Your task to perform on an android device: toggle show notifications on the lock screen Image 0: 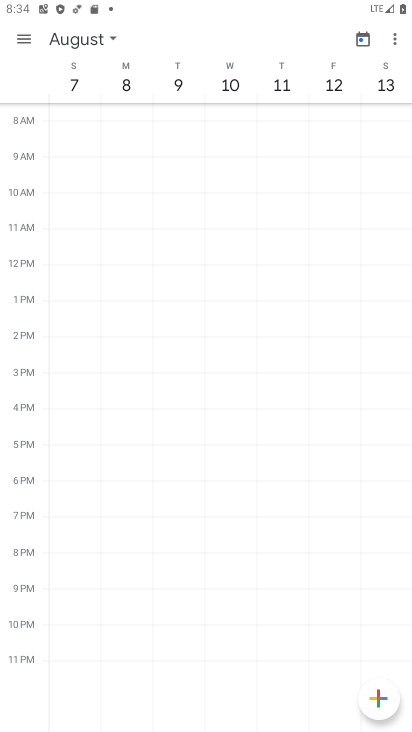
Step 0: press home button
Your task to perform on an android device: toggle show notifications on the lock screen Image 1: 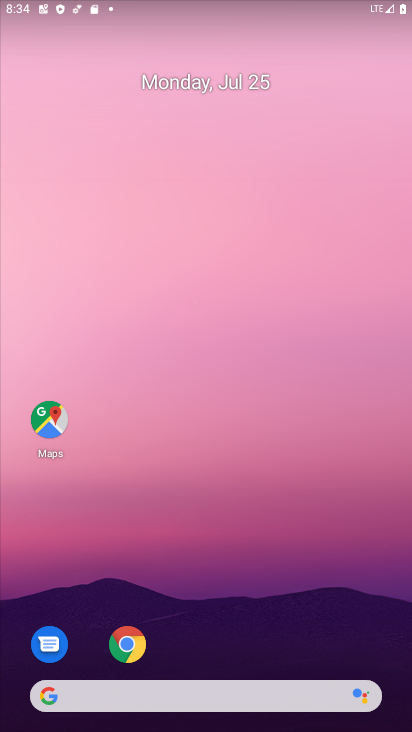
Step 1: drag from (228, 602) to (261, 60)
Your task to perform on an android device: toggle show notifications on the lock screen Image 2: 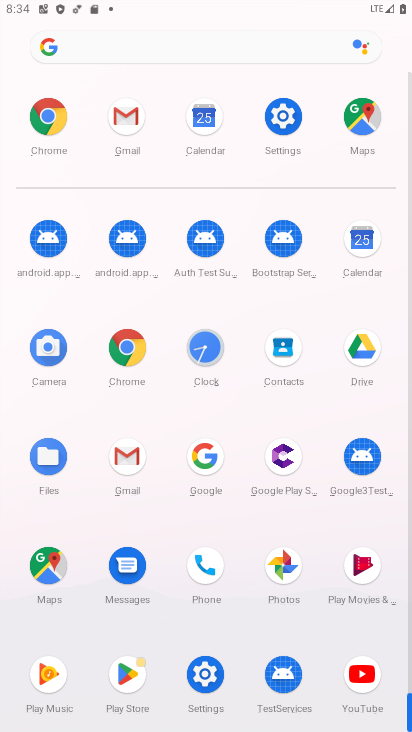
Step 2: click (208, 670)
Your task to perform on an android device: toggle show notifications on the lock screen Image 3: 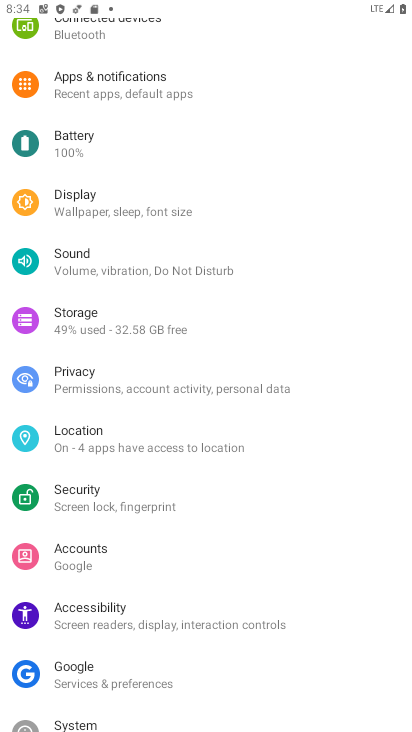
Step 3: drag from (139, 68) to (185, 518)
Your task to perform on an android device: toggle show notifications on the lock screen Image 4: 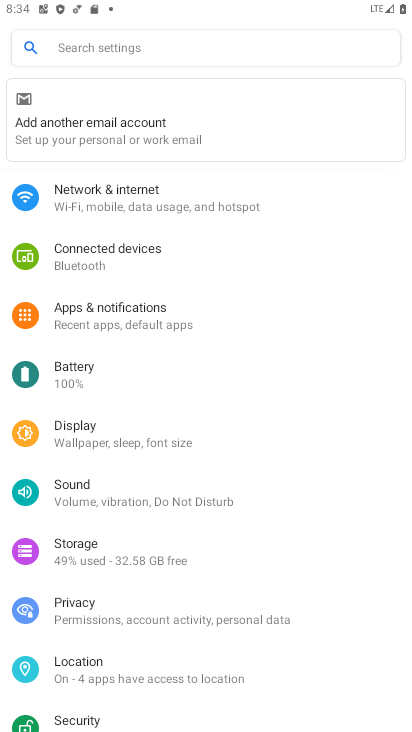
Step 4: click (145, 314)
Your task to perform on an android device: toggle show notifications on the lock screen Image 5: 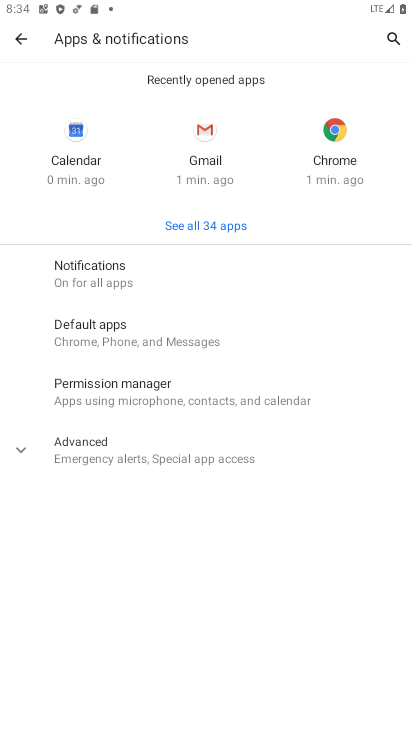
Step 5: click (141, 285)
Your task to perform on an android device: toggle show notifications on the lock screen Image 6: 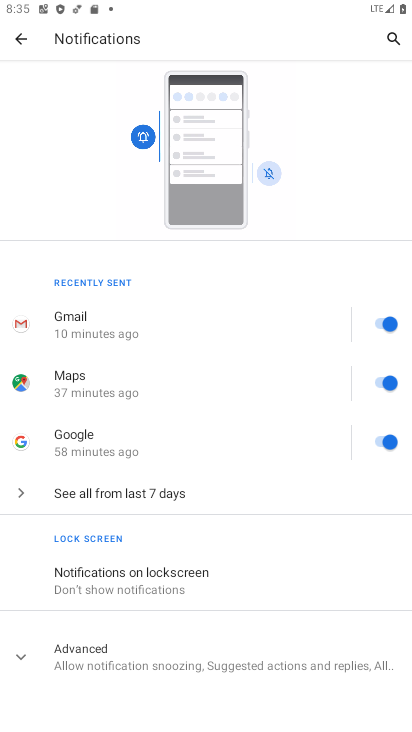
Step 6: click (123, 586)
Your task to perform on an android device: toggle show notifications on the lock screen Image 7: 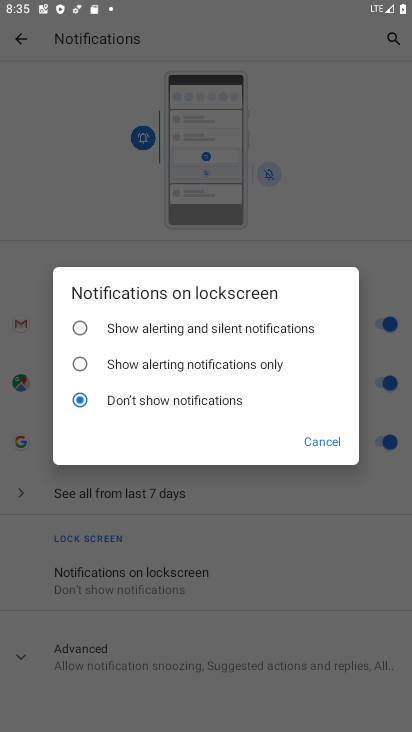
Step 7: click (122, 330)
Your task to perform on an android device: toggle show notifications on the lock screen Image 8: 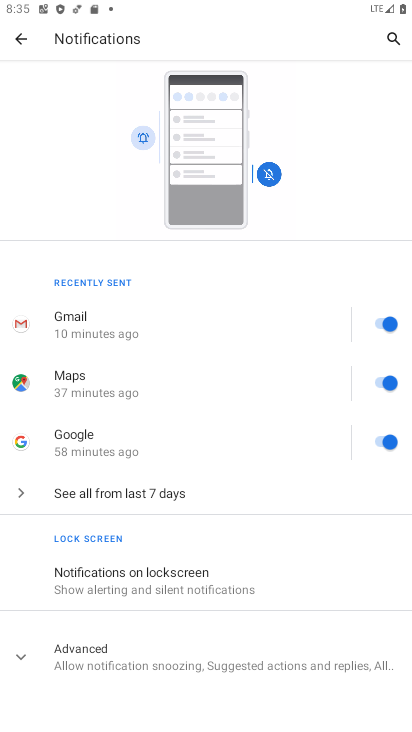
Step 8: task complete